Your task to perform on an android device: Do I have any events tomorrow? Image 0: 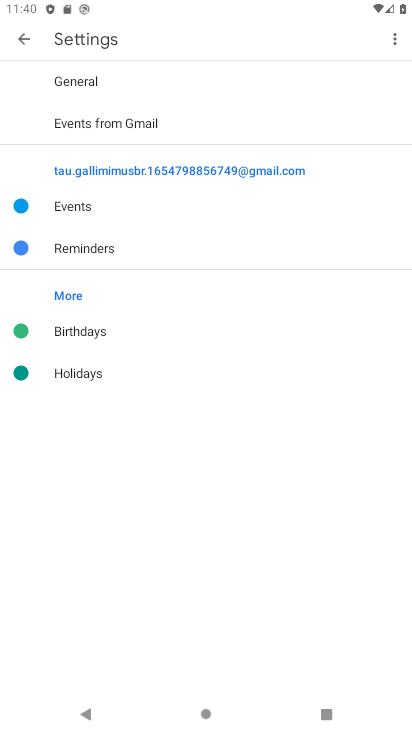
Step 0: press home button
Your task to perform on an android device: Do I have any events tomorrow? Image 1: 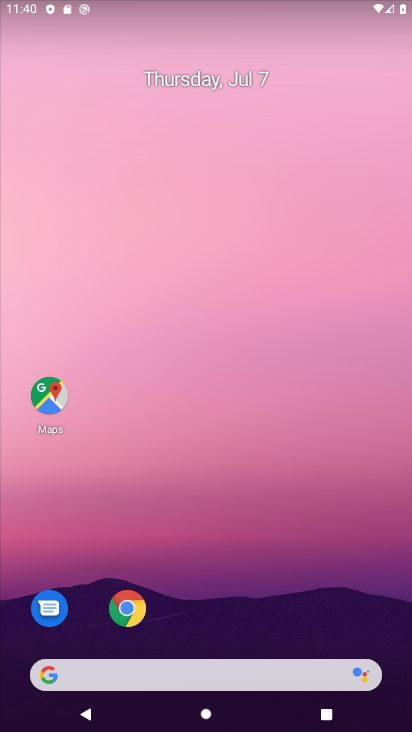
Step 1: drag from (312, 609) to (210, 1)
Your task to perform on an android device: Do I have any events tomorrow? Image 2: 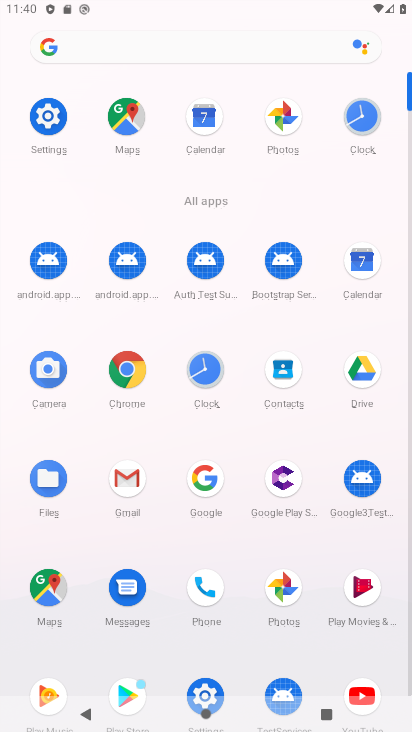
Step 2: click (208, 113)
Your task to perform on an android device: Do I have any events tomorrow? Image 3: 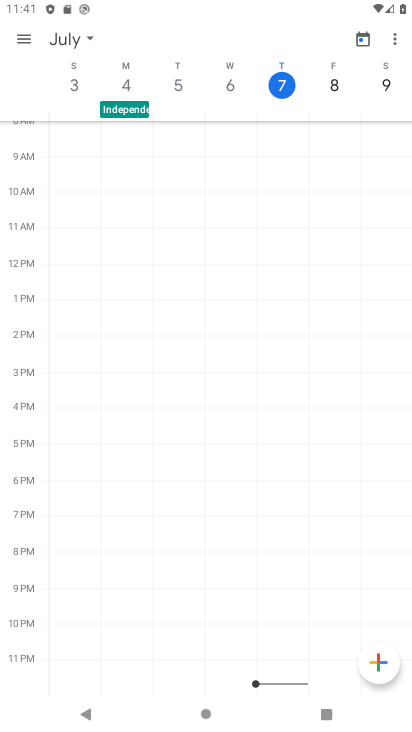
Step 3: task complete